Your task to perform on an android device: When is my next meeting? Image 0: 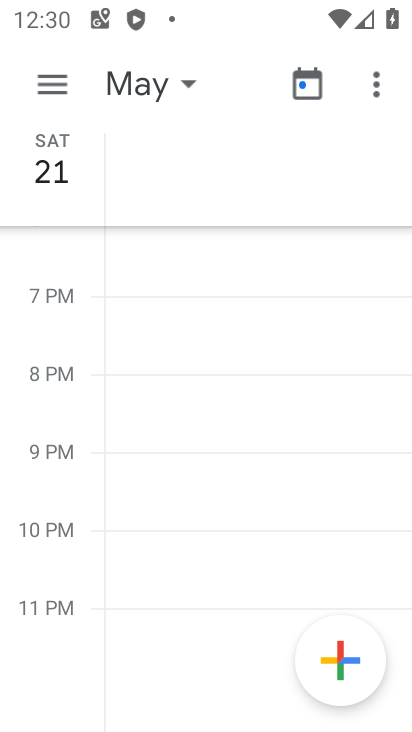
Step 0: click (34, 91)
Your task to perform on an android device: When is my next meeting? Image 1: 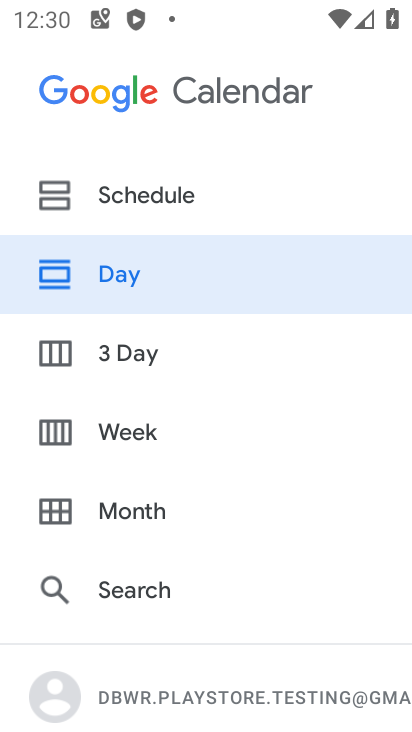
Step 1: click (179, 202)
Your task to perform on an android device: When is my next meeting? Image 2: 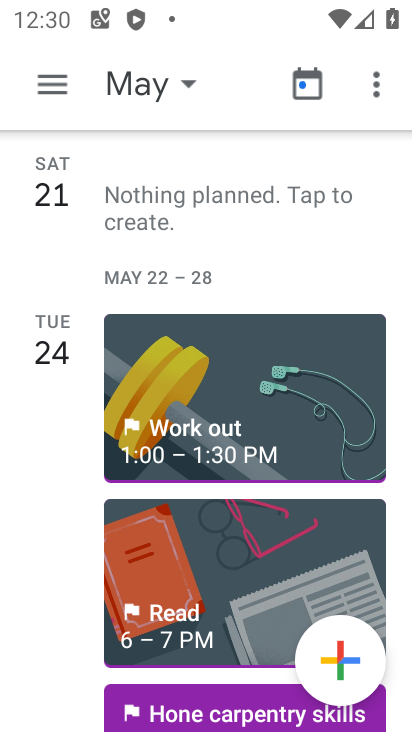
Step 2: task complete